Your task to perform on an android device: turn on bluetooth scan Image 0: 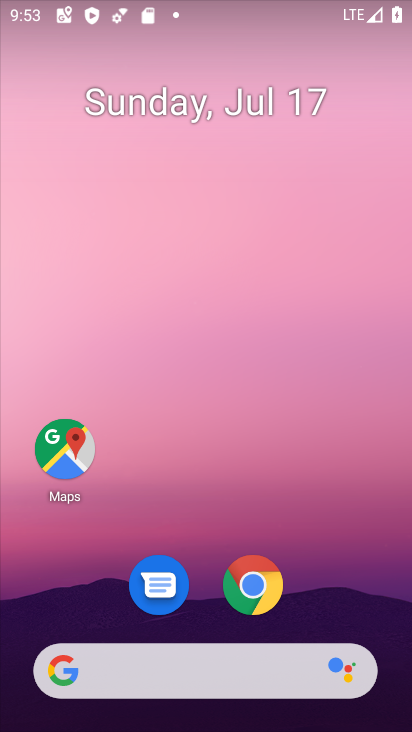
Step 0: drag from (305, 505) to (265, 2)
Your task to perform on an android device: turn on bluetooth scan Image 1: 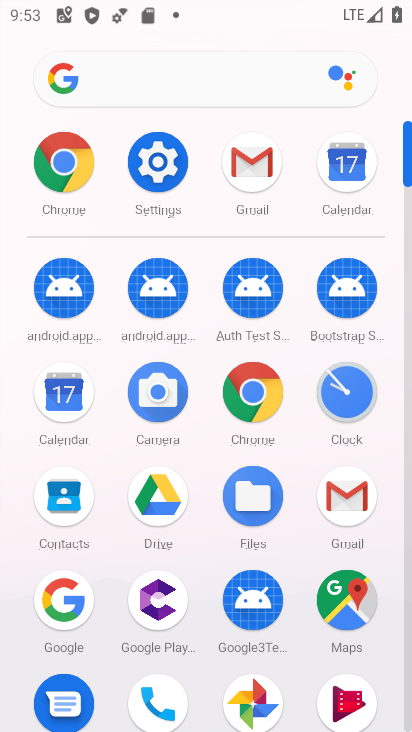
Step 1: click (156, 169)
Your task to perform on an android device: turn on bluetooth scan Image 2: 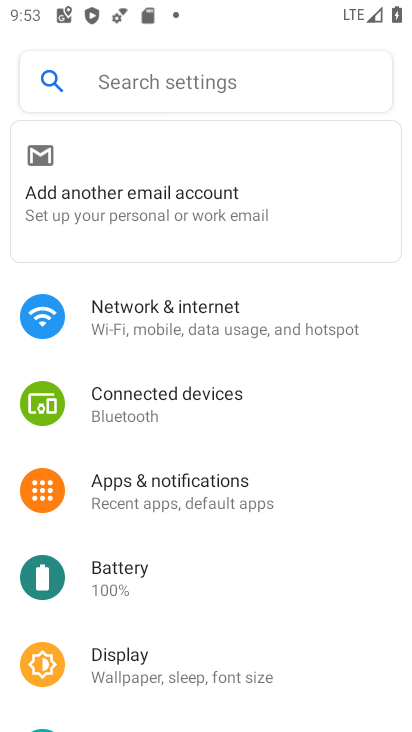
Step 2: click (222, 491)
Your task to perform on an android device: turn on bluetooth scan Image 3: 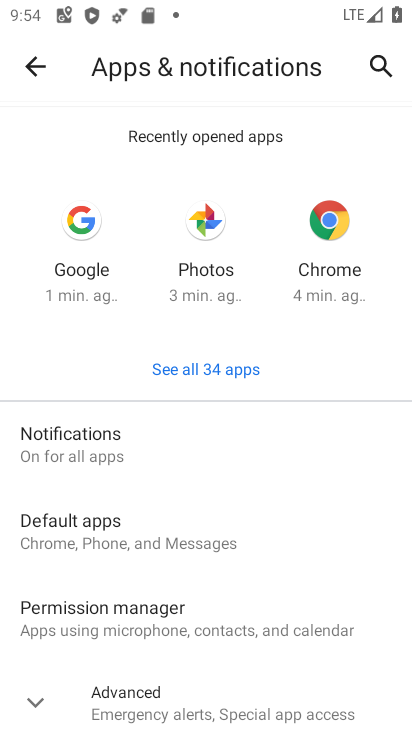
Step 3: click (37, 61)
Your task to perform on an android device: turn on bluetooth scan Image 4: 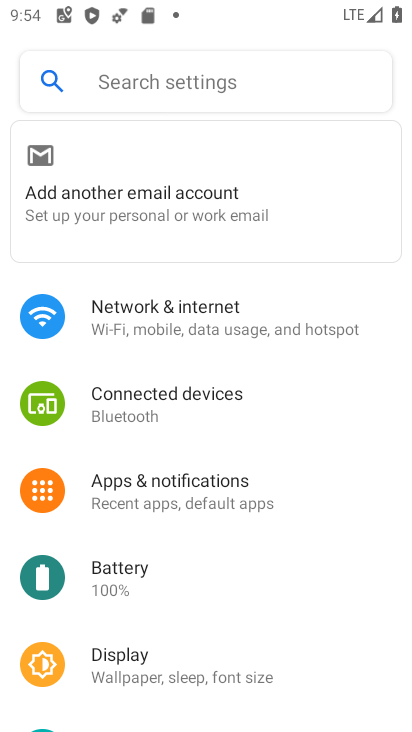
Step 4: drag from (226, 595) to (271, 99)
Your task to perform on an android device: turn on bluetooth scan Image 5: 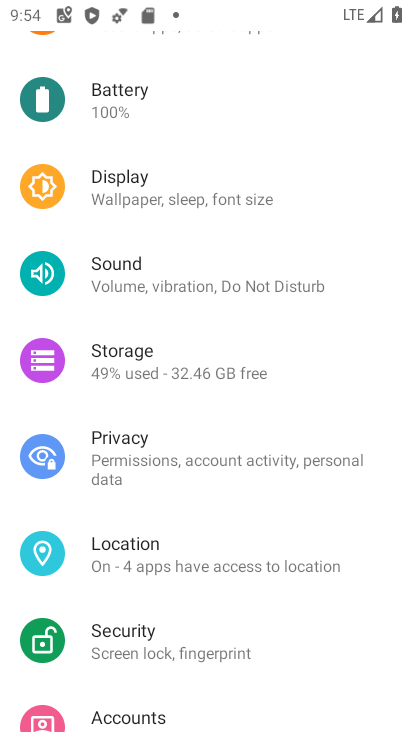
Step 5: click (165, 553)
Your task to perform on an android device: turn on bluetooth scan Image 6: 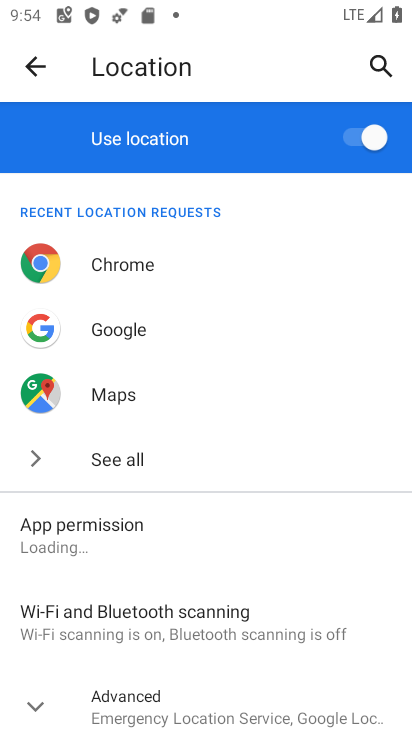
Step 6: drag from (249, 442) to (268, 166)
Your task to perform on an android device: turn on bluetooth scan Image 7: 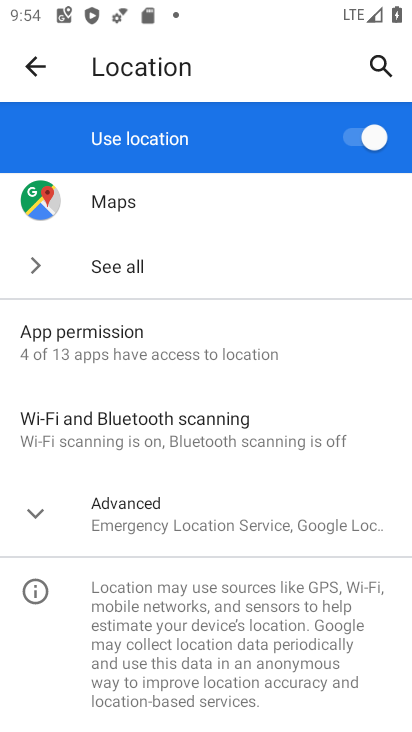
Step 7: click (117, 430)
Your task to perform on an android device: turn on bluetooth scan Image 8: 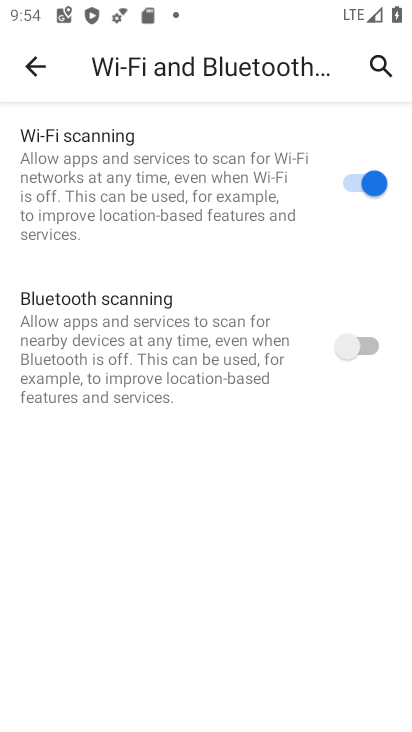
Step 8: click (372, 339)
Your task to perform on an android device: turn on bluetooth scan Image 9: 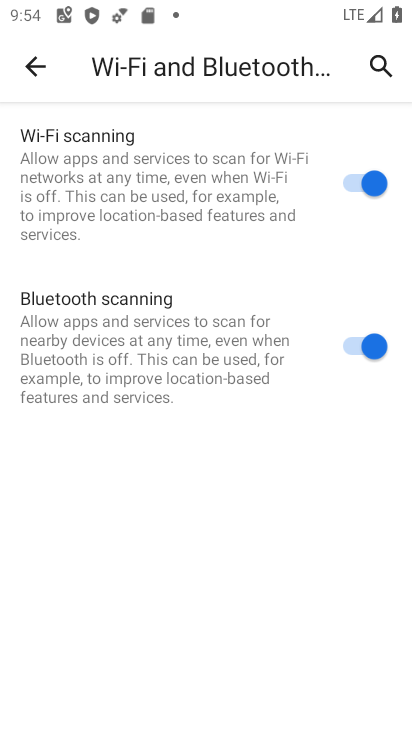
Step 9: task complete